Your task to perform on an android device: toggle notifications settings in the gmail app Image 0: 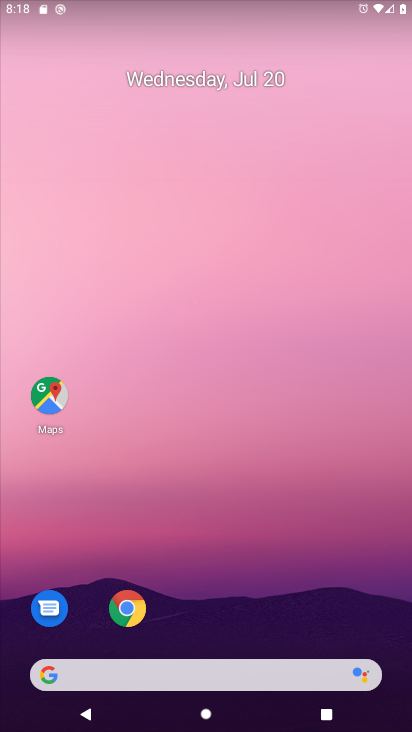
Step 0: drag from (173, 670) to (205, 76)
Your task to perform on an android device: toggle notifications settings in the gmail app Image 1: 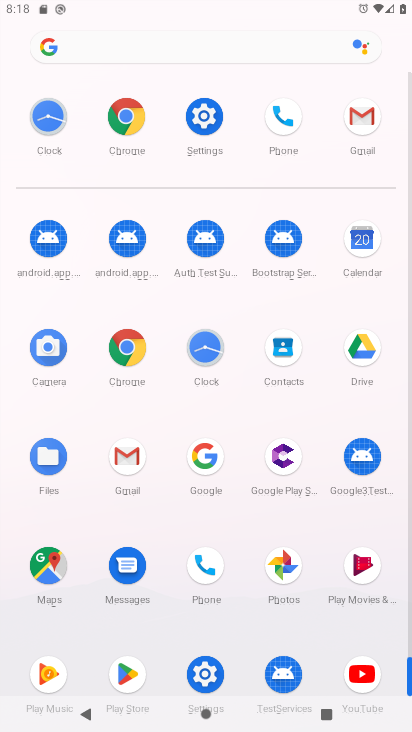
Step 1: click (201, 452)
Your task to perform on an android device: toggle notifications settings in the gmail app Image 2: 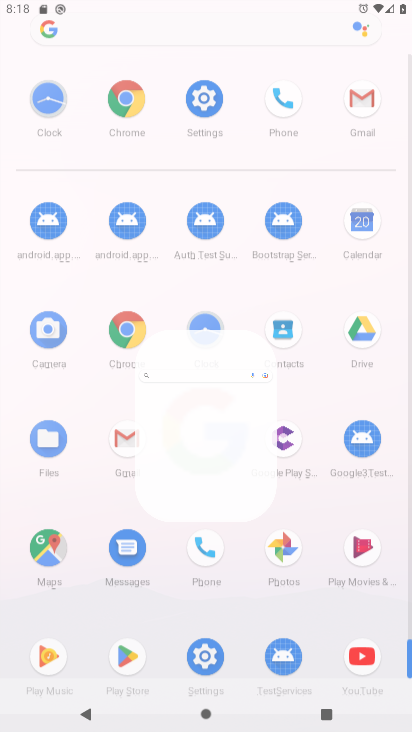
Step 2: press home button
Your task to perform on an android device: toggle notifications settings in the gmail app Image 3: 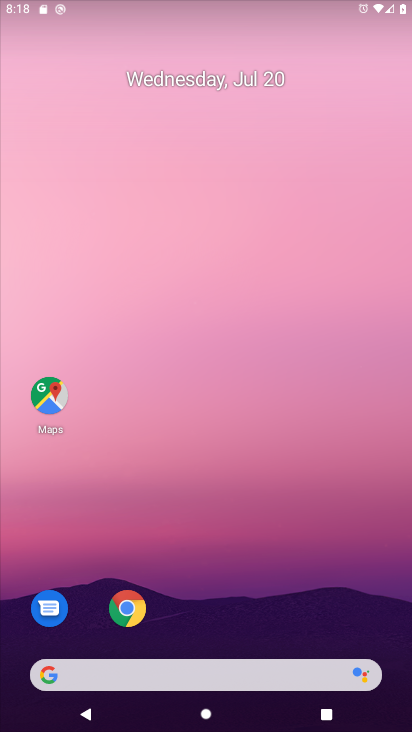
Step 3: drag from (152, 641) to (204, 221)
Your task to perform on an android device: toggle notifications settings in the gmail app Image 4: 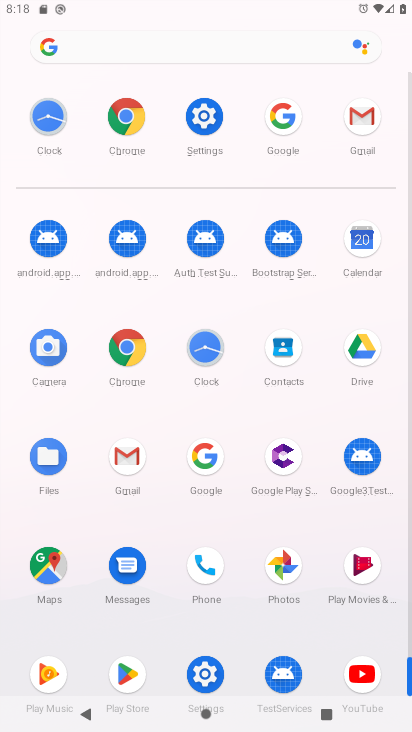
Step 4: click (128, 453)
Your task to perform on an android device: toggle notifications settings in the gmail app Image 5: 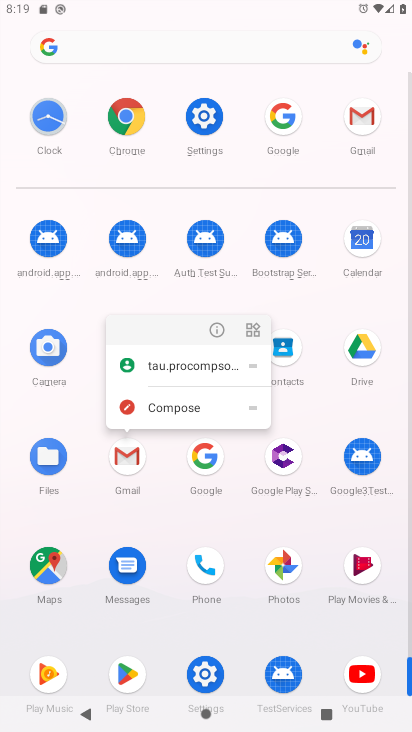
Step 5: click (126, 453)
Your task to perform on an android device: toggle notifications settings in the gmail app Image 6: 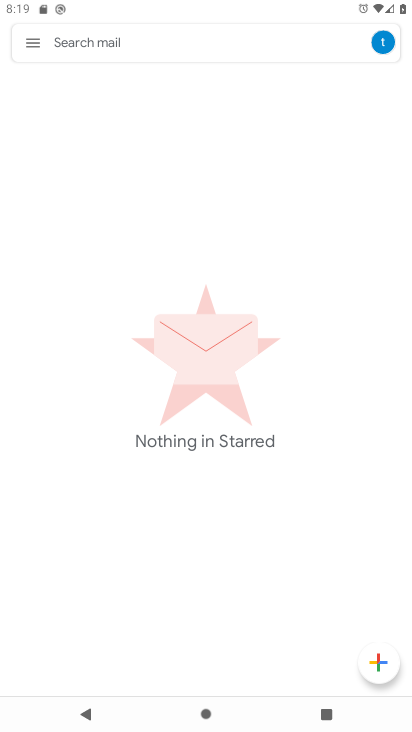
Step 6: click (36, 38)
Your task to perform on an android device: toggle notifications settings in the gmail app Image 7: 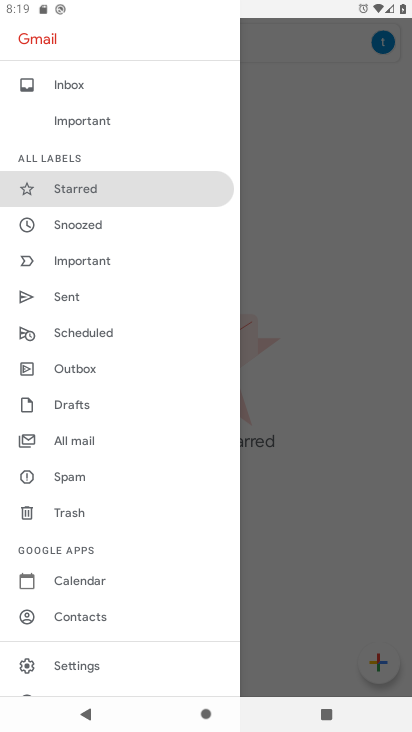
Step 7: click (86, 666)
Your task to perform on an android device: toggle notifications settings in the gmail app Image 8: 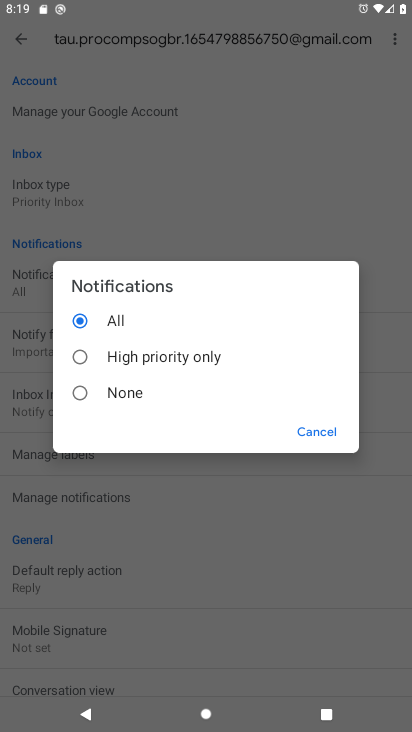
Step 8: click (136, 385)
Your task to perform on an android device: toggle notifications settings in the gmail app Image 9: 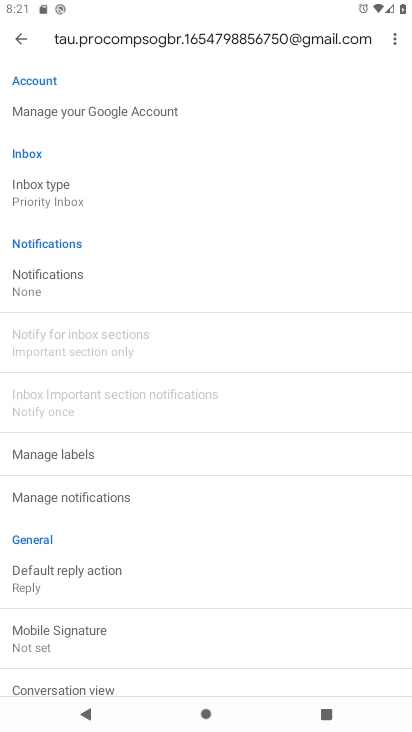
Step 9: task complete